Your task to perform on an android device: Set an alarm for 7pm Image 0: 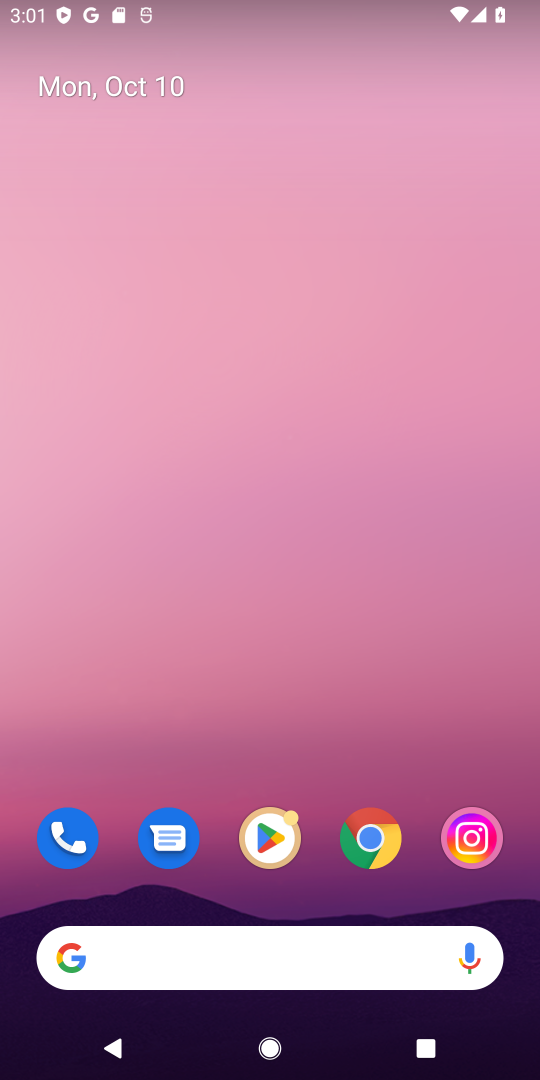
Step 0: drag from (228, 772) to (251, 56)
Your task to perform on an android device: Set an alarm for 7pm Image 1: 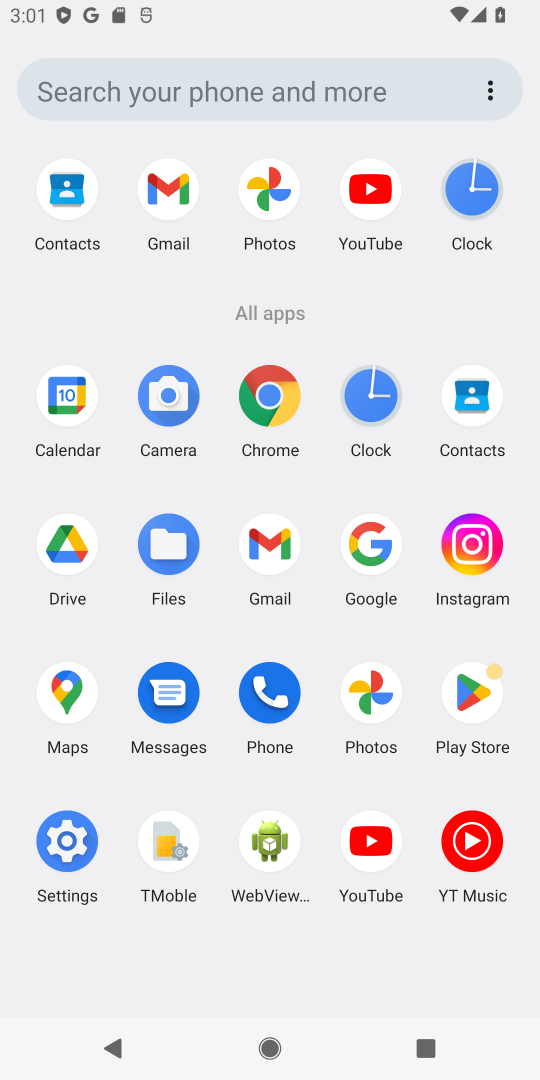
Step 1: click (385, 407)
Your task to perform on an android device: Set an alarm for 7pm Image 2: 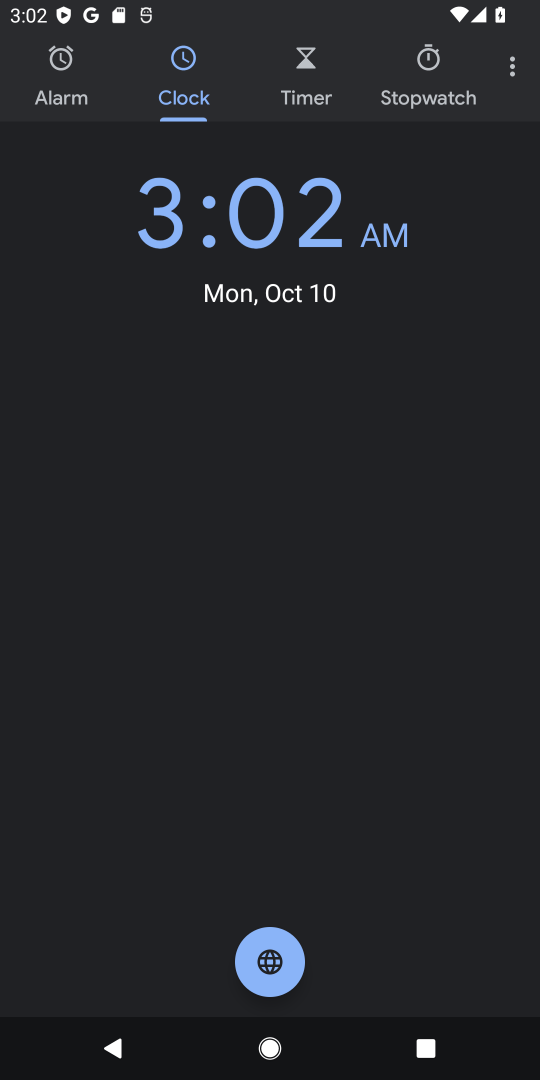
Step 2: click (125, 95)
Your task to perform on an android device: Set an alarm for 7pm Image 3: 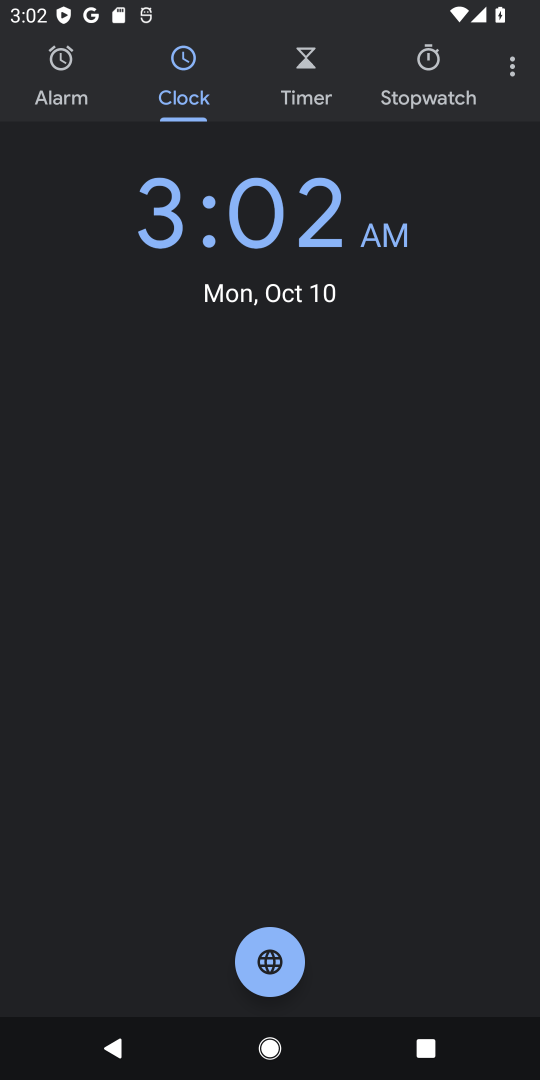
Step 3: click (81, 82)
Your task to perform on an android device: Set an alarm for 7pm Image 4: 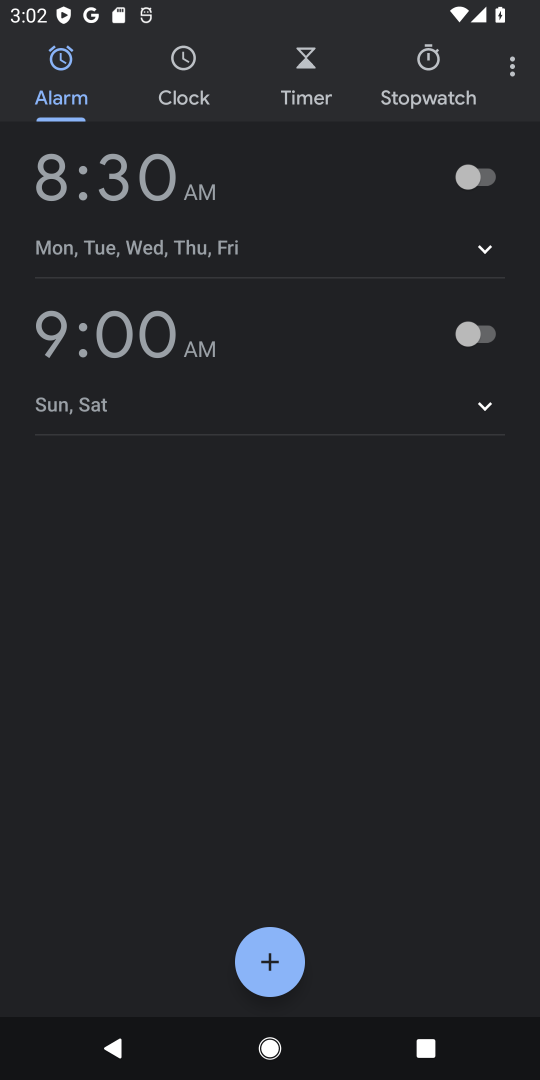
Step 4: click (237, 205)
Your task to perform on an android device: Set an alarm for 7pm Image 5: 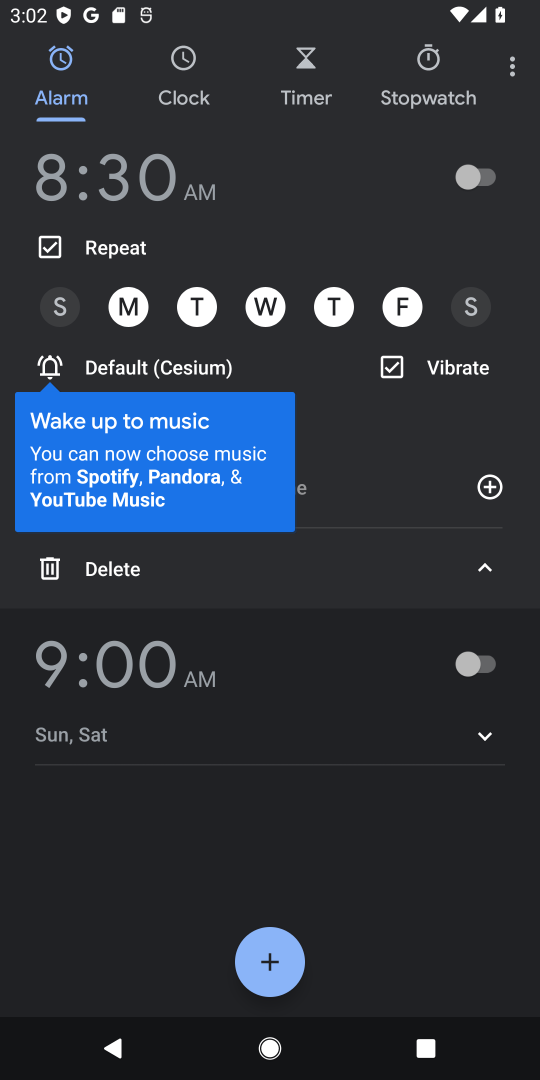
Step 5: click (104, 178)
Your task to perform on an android device: Set an alarm for 7pm Image 6: 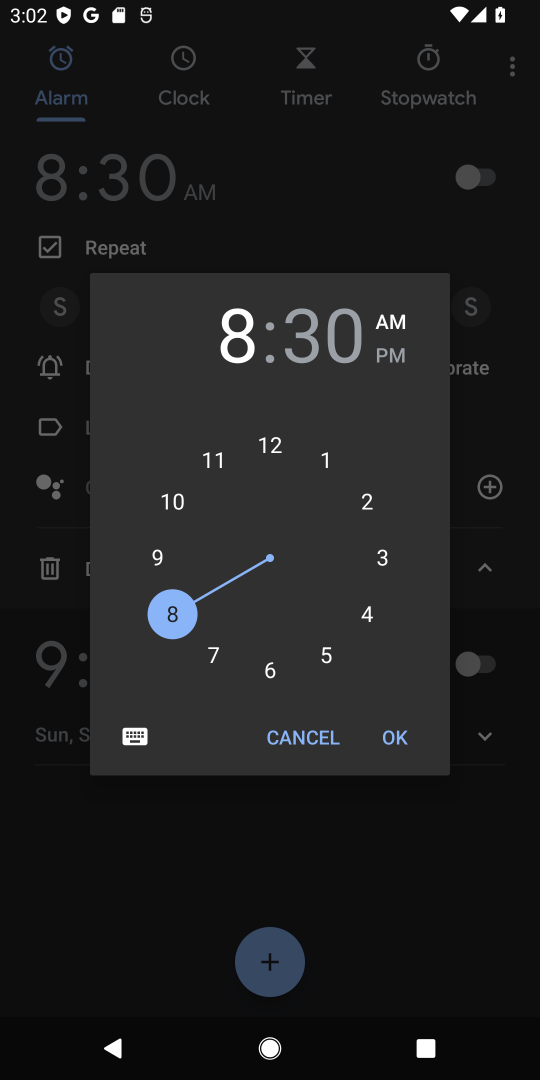
Step 6: click (214, 644)
Your task to perform on an android device: Set an alarm for 7pm Image 7: 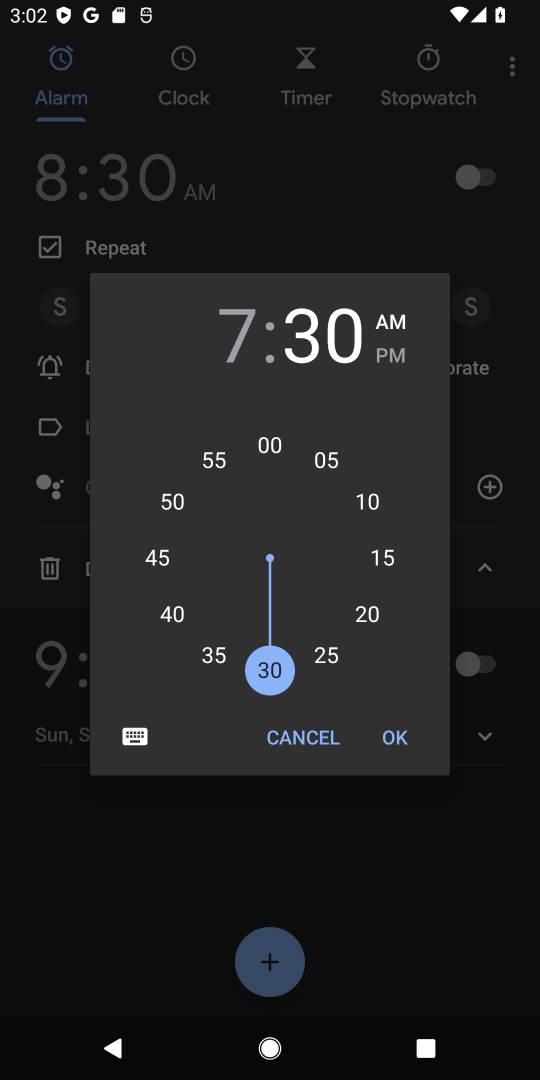
Step 7: click (263, 445)
Your task to perform on an android device: Set an alarm for 7pm Image 8: 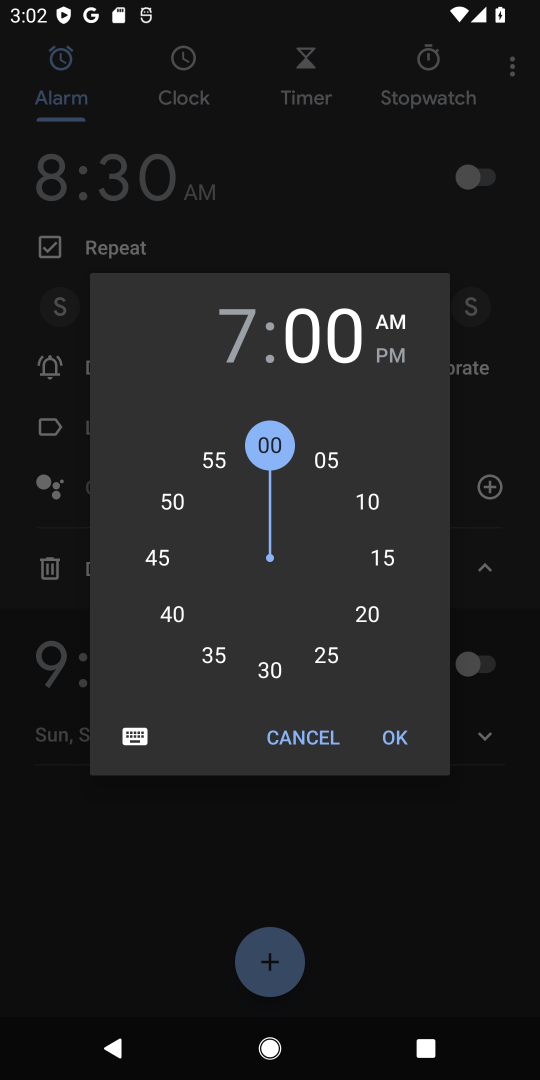
Step 8: click (392, 361)
Your task to perform on an android device: Set an alarm for 7pm Image 9: 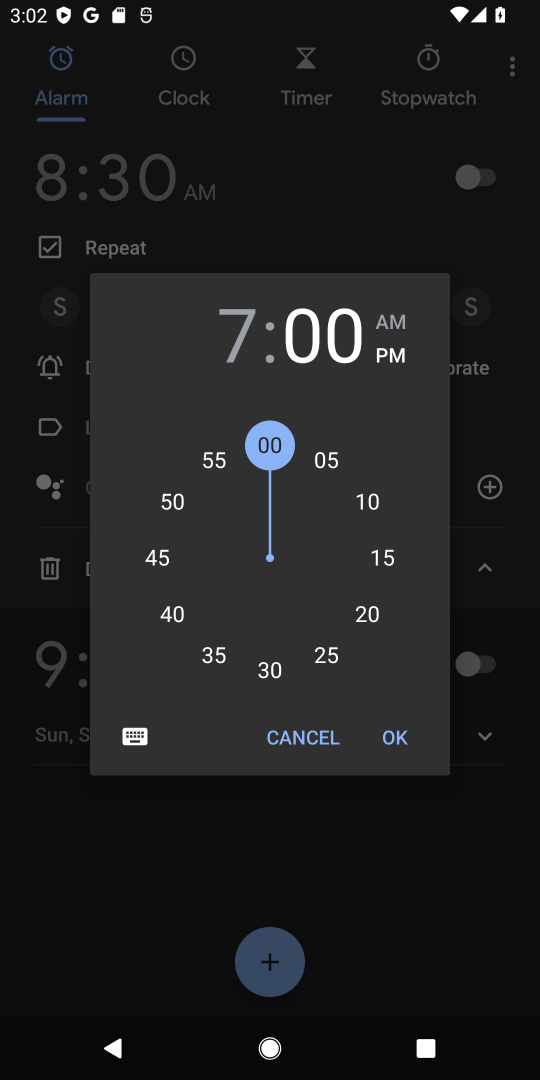
Step 9: click (387, 706)
Your task to perform on an android device: Set an alarm for 7pm Image 10: 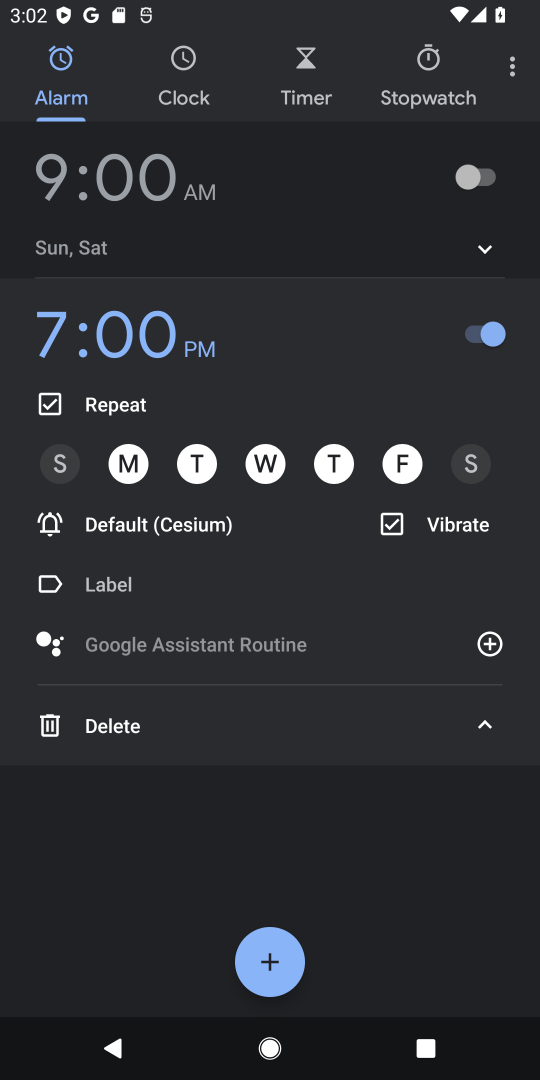
Step 10: task complete